Your task to perform on an android device: turn on sleep mode Image 0: 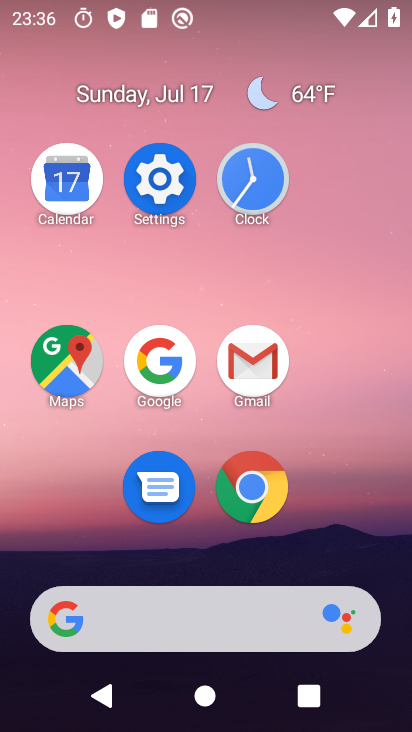
Step 0: click (149, 167)
Your task to perform on an android device: turn on sleep mode Image 1: 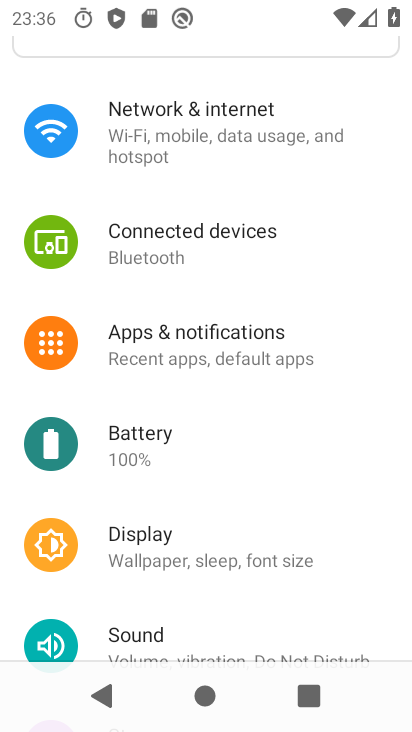
Step 1: click (203, 566)
Your task to perform on an android device: turn on sleep mode Image 2: 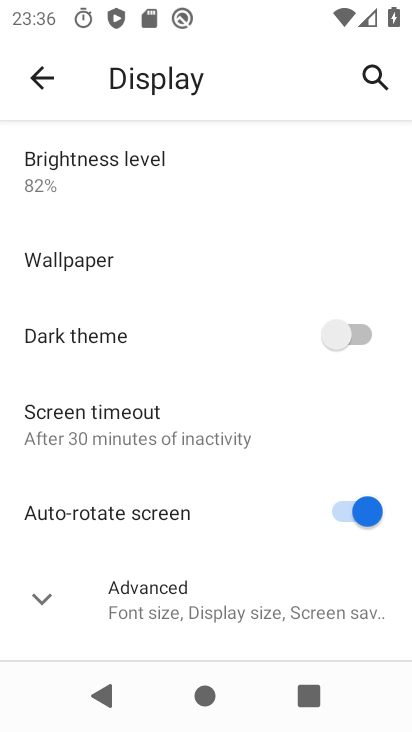
Step 2: click (234, 438)
Your task to perform on an android device: turn on sleep mode Image 3: 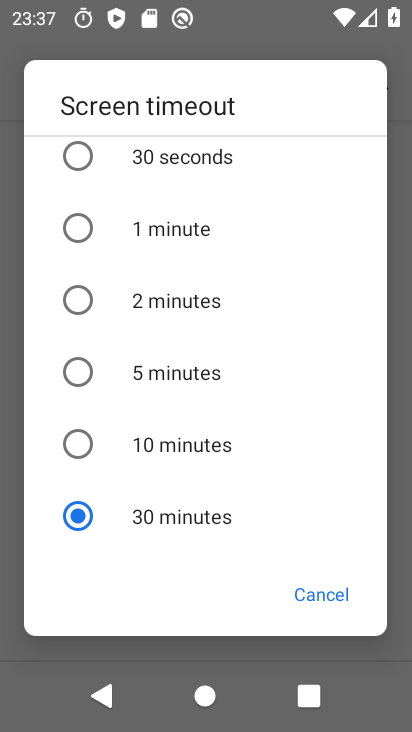
Step 3: task complete